Your task to perform on an android device: Go to Google Image 0: 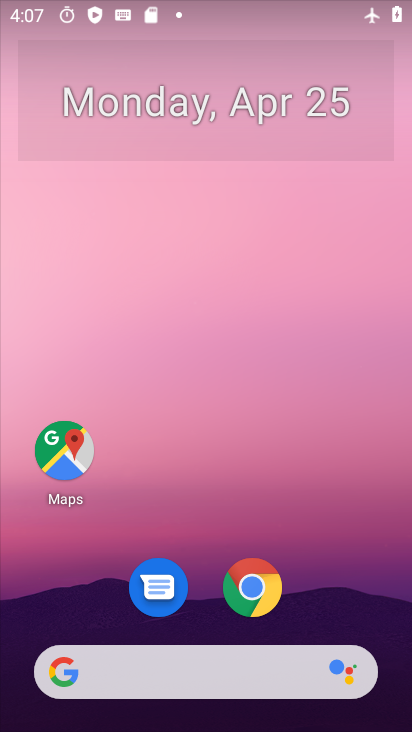
Step 0: drag from (323, 512) to (315, 109)
Your task to perform on an android device: Go to Google Image 1: 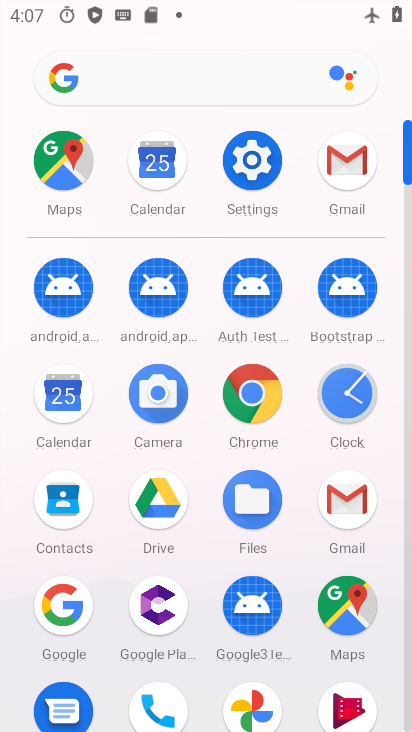
Step 1: click (63, 605)
Your task to perform on an android device: Go to Google Image 2: 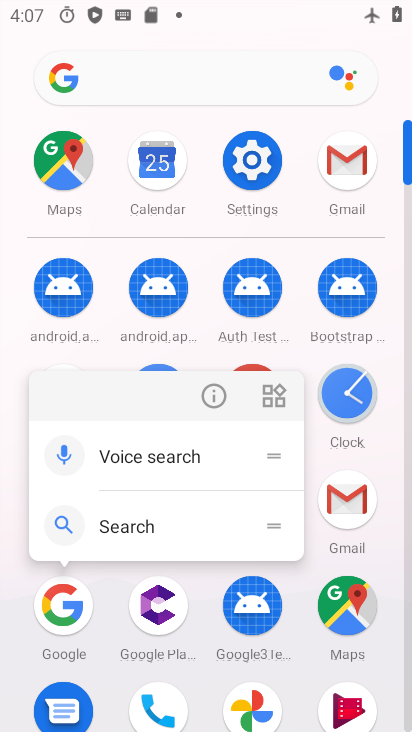
Step 2: click (63, 610)
Your task to perform on an android device: Go to Google Image 3: 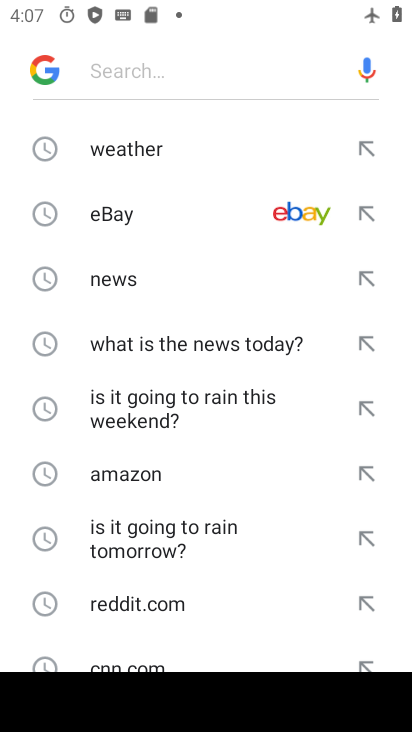
Step 3: task complete